Your task to perform on an android device: allow cookies in the chrome app Image 0: 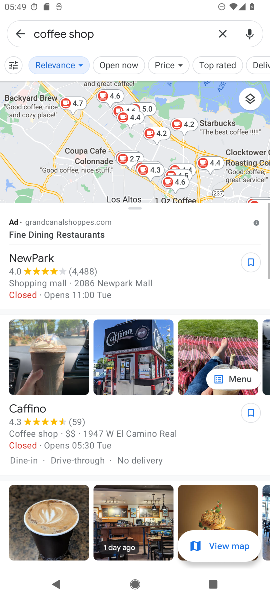
Step 0: press home button
Your task to perform on an android device: allow cookies in the chrome app Image 1: 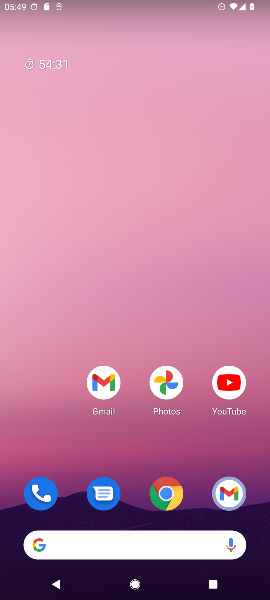
Step 1: drag from (67, 466) to (113, 108)
Your task to perform on an android device: allow cookies in the chrome app Image 2: 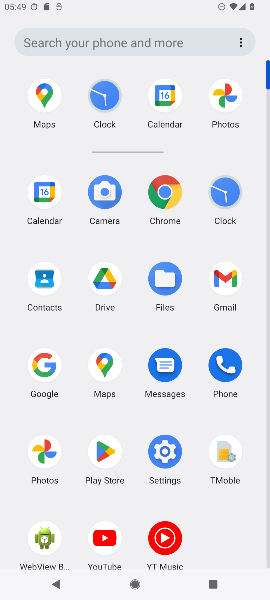
Step 2: click (164, 194)
Your task to perform on an android device: allow cookies in the chrome app Image 3: 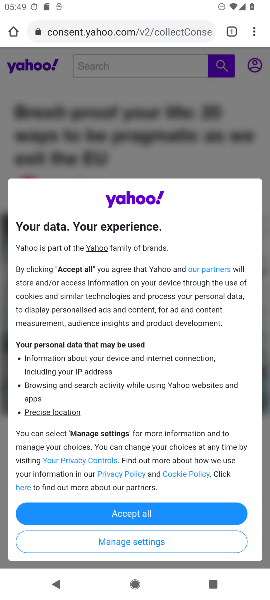
Step 3: click (254, 31)
Your task to perform on an android device: allow cookies in the chrome app Image 4: 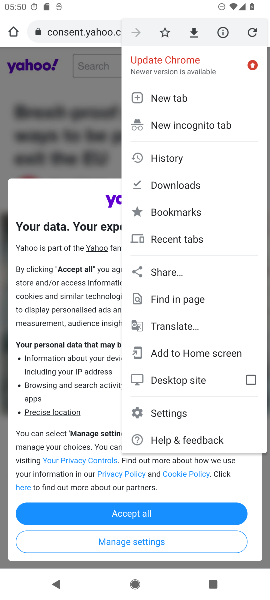
Step 4: click (184, 412)
Your task to perform on an android device: allow cookies in the chrome app Image 5: 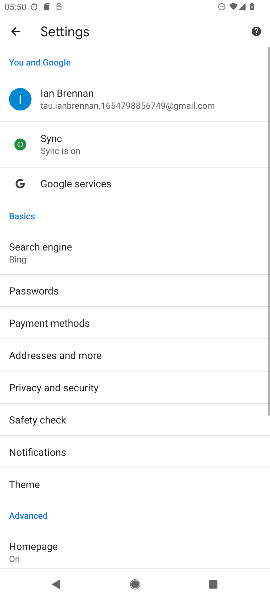
Step 5: drag from (184, 440) to (197, 300)
Your task to perform on an android device: allow cookies in the chrome app Image 6: 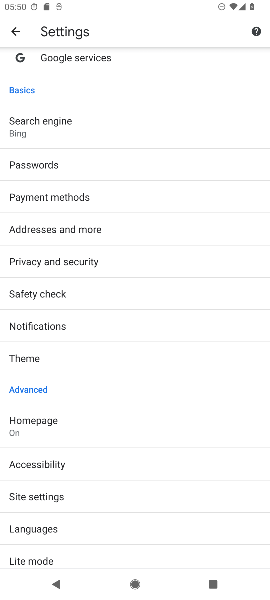
Step 6: drag from (181, 440) to (196, 290)
Your task to perform on an android device: allow cookies in the chrome app Image 7: 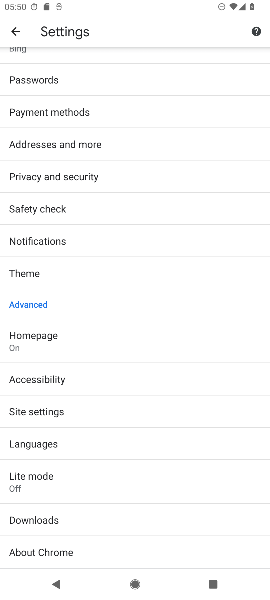
Step 7: drag from (197, 164) to (202, 339)
Your task to perform on an android device: allow cookies in the chrome app Image 8: 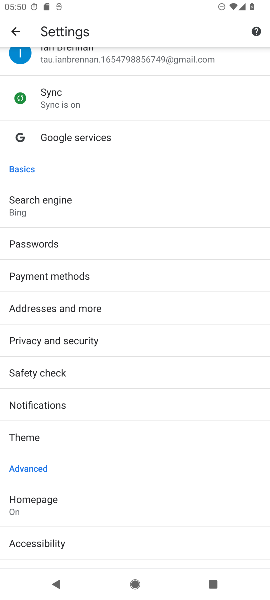
Step 8: drag from (205, 210) to (207, 369)
Your task to perform on an android device: allow cookies in the chrome app Image 9: 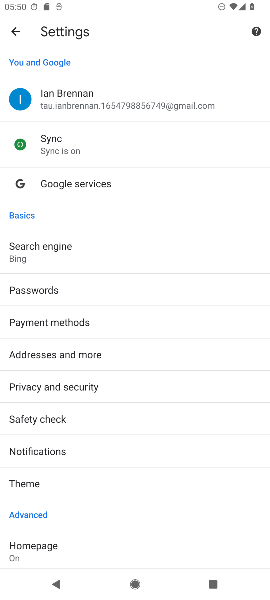
Step 9: drag from (186, 450) to (192, 280)
Your task to perform on an android device: allow cookies in the chrome app Image 10: 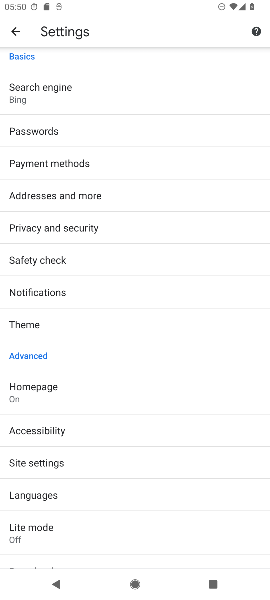
Step 10: drag from (189, 430) to (188, 291)
Your task to perform on an android device: allow cookies in the chrome app Image 11: 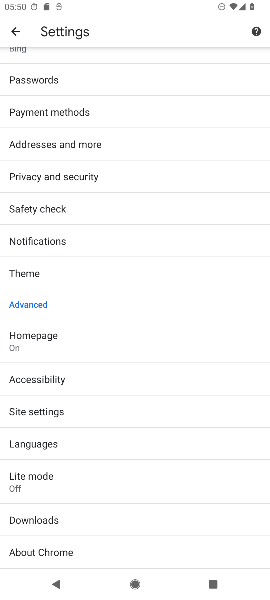
Step 11: drag from (197, 147) to (202, 314)
Your task to perform on an android device: allow cookies in the chrome app Image 12: 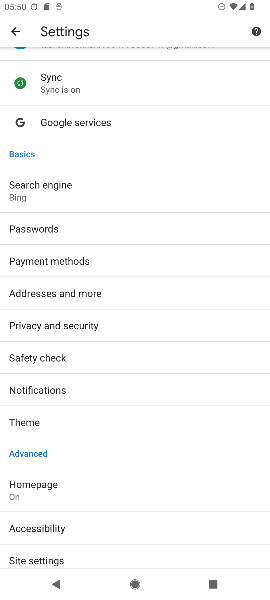
Step 12: drag from (208, 168) to (202, 316)
Your task to perform on an android device: allow cookies in the chrome app Image 13: 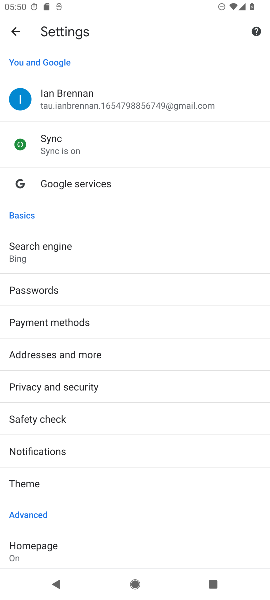
Step 13: drag from (207, 191) to (205, 343)
Your task to perform on an android device: allow cookies in the chrome app Image 14: 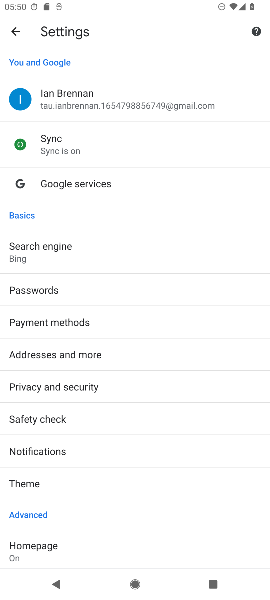
Step 14: drag from (195, 438) to (195, 237)
Your task to perform on an android device: allow cookies in the chrome app Image 15: 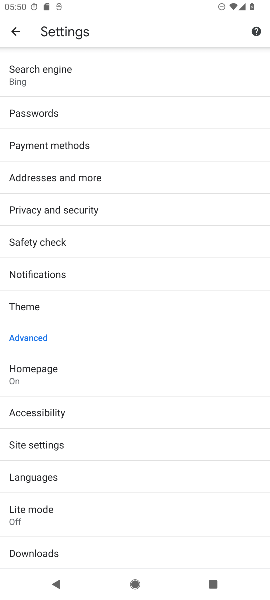
Step 15: drag from (163, 459) to (172, 295)
Your task to perform on an android device: allow cookies in the chrome app Image 16: 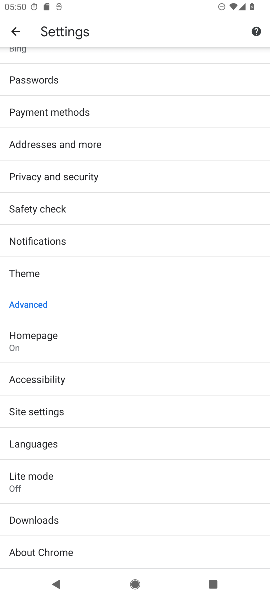
Step 16: click (149, 409)
Your task to perform on an android device: allow cookies in the chrome app Image 17: 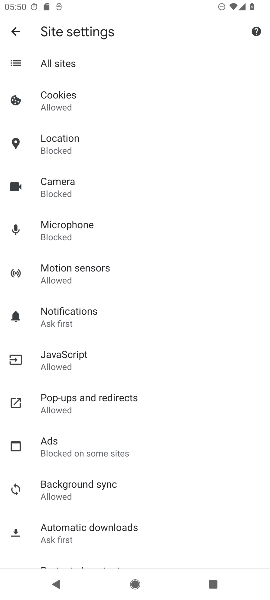
Step 17: drag from (199, 424) to (199, 298)
Your task to perform on an android device: allow cookies in the chrome app Image 18: 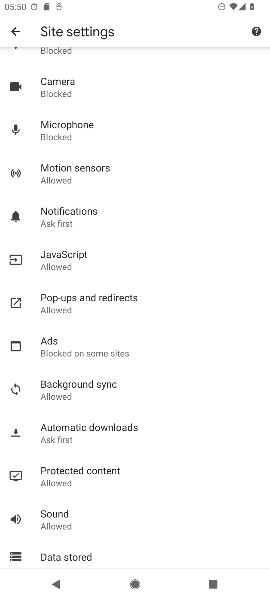
Step 18: drag from (197, 424) to (199, 293)
Your task to perform on an android device: allow cookies in the chrome app Image 19: 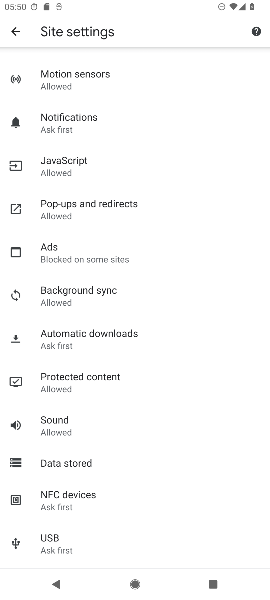
Step 19: drag from (202, 451) to (204, 250)
Your task to perform on an android device: allow cookies in the chrome app Image 20: 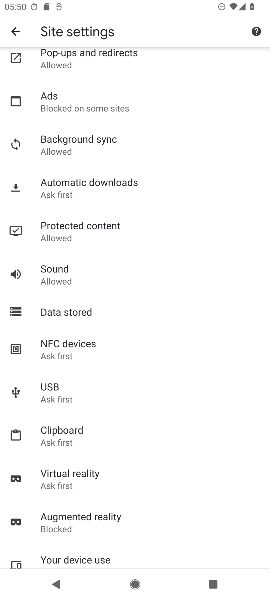
Step 20: drag from (196, 137) to (195, 359)
Your task to perform on an android device: allow cookies in the chrome app Image 21: 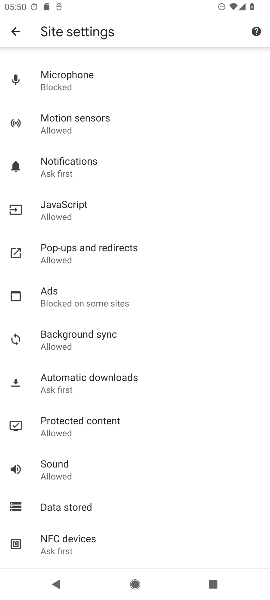
Step 21: drag from (198, 185) to (191, 352)
Your task to perform on an android device: allow cookies in the chrome app Image 22: 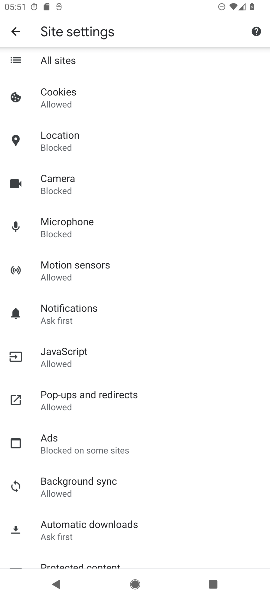
Step 22: drag from (206, 132) to (204, 368)
Your task to perform on an android device: allow cookies in the chrome app Image 23: 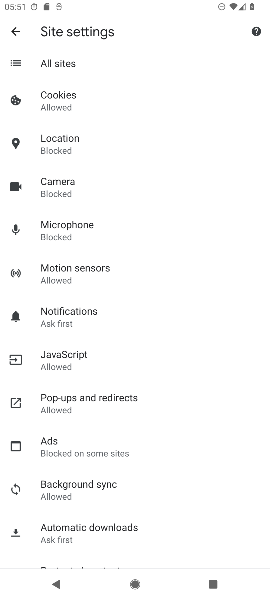
Step 23: click (88, 99)
Your task to perform on an android device: allow cookies in the chrome app Image 24: 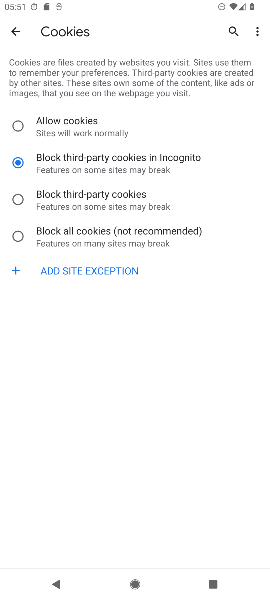
Step 24: click (21, 124)
Your task to perform on an android device: allow cookies in the chrome app Image 25: 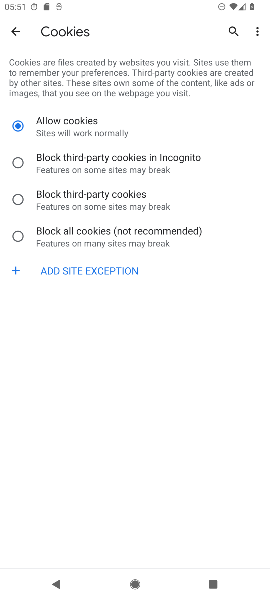
Step 25: task complete